Your task to perform on an android device: change text size in settings app Image 0: 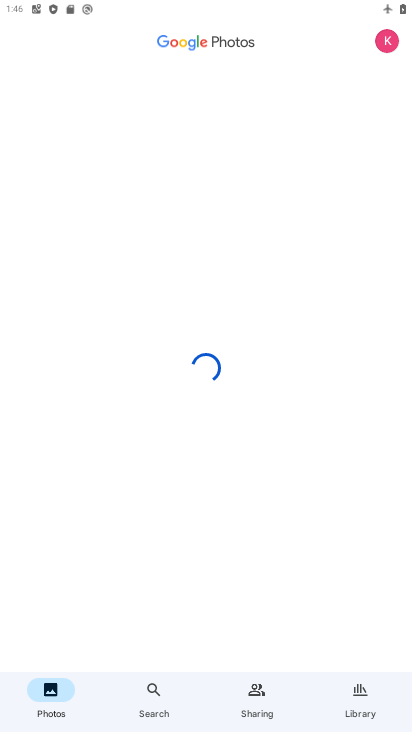
Step 0: press home button
Your task to perform on an android device: change text size in settings app Image 1: 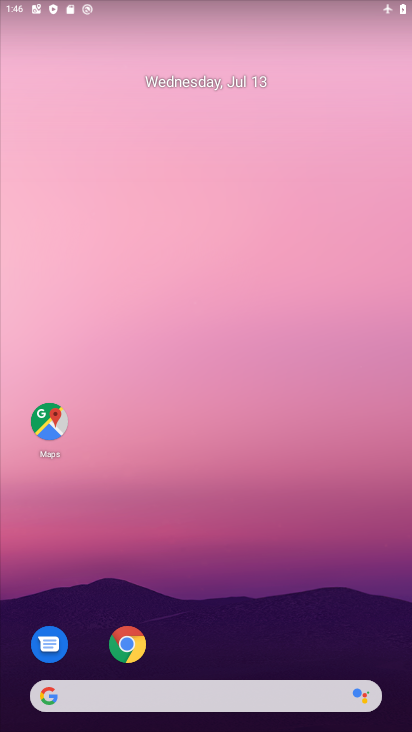
Step 1: drag from (313, 514) to (312, 121)
Your task to perform on an android device: change text size in settings app Image 2: 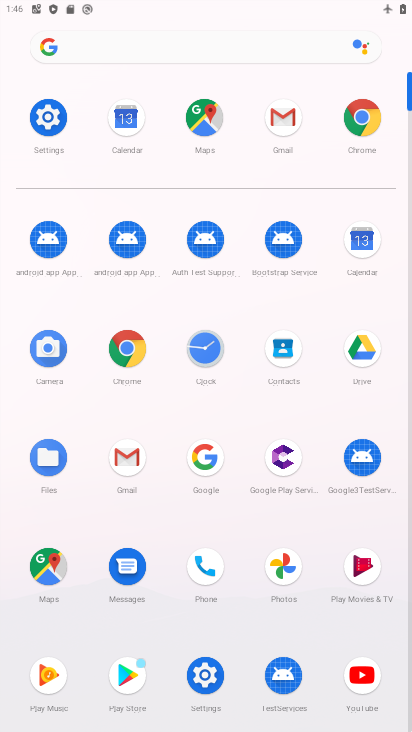
Step 2: click (53, 115)
Your task to perform on an android device: change text size in settings app Image 3: 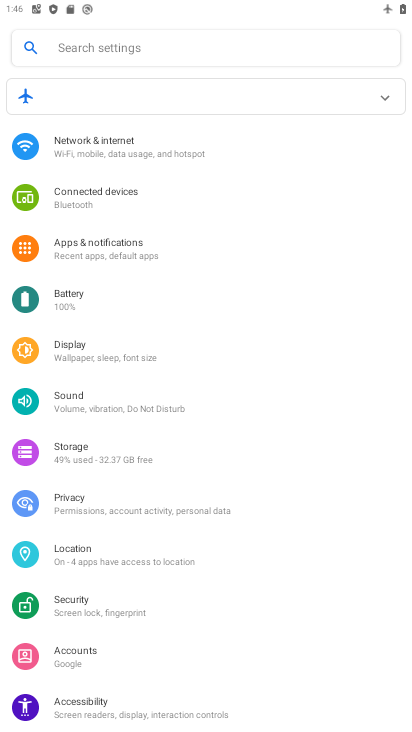
Step 3: click (114, 357)
Your task to perform on an android device: change text size in settings app Image 4: 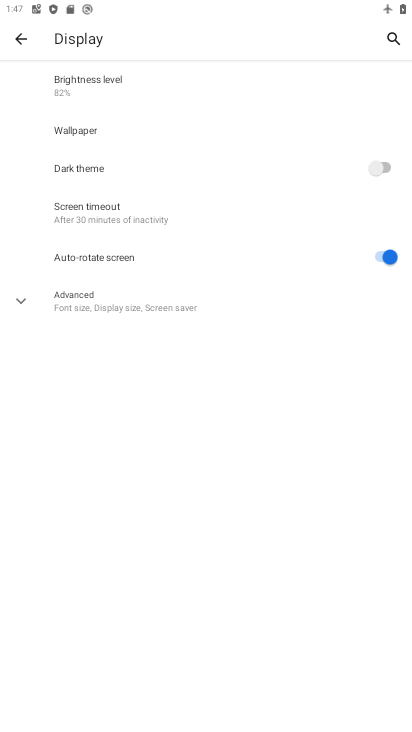
Step 4: click (120, 311)
Your task to perform on an android device: change text size in settings app Image 5: 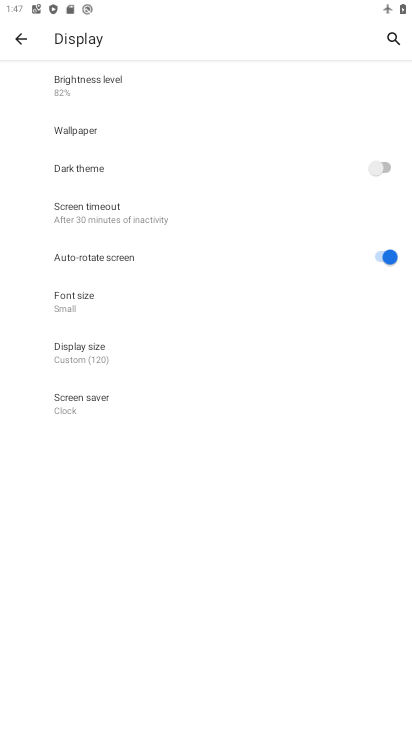
Step 5: click (89, 297)
Your task to perform on an android device: change text size in settings app Image 6: 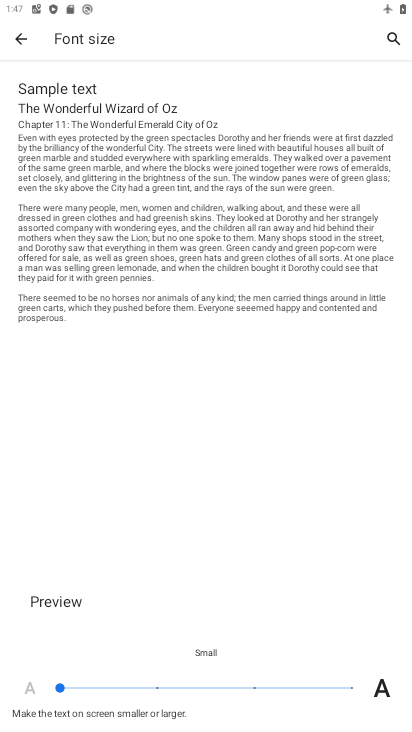
Step 6: click (125, 682)
Your task to perform on an android device: change text size in settings app Image 7: 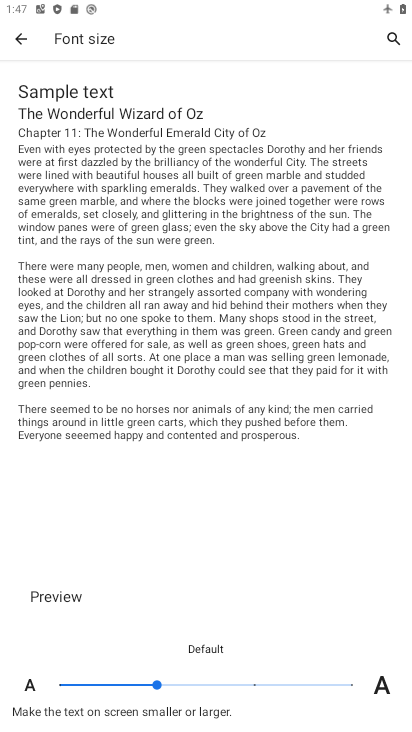
Step 7: task complete